Your task to perform on an android device: uninstall "eBay: The shopping marketplace" Image 0: 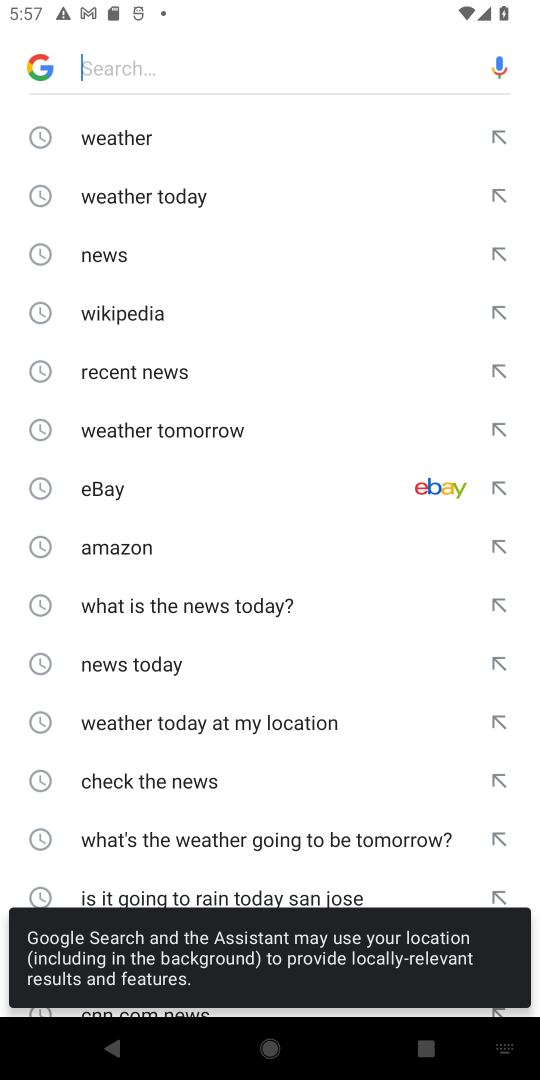
Step 0: press home button
Your task to perform on an android device: uninstall "eBay: The shopping marketplace" Image 1: 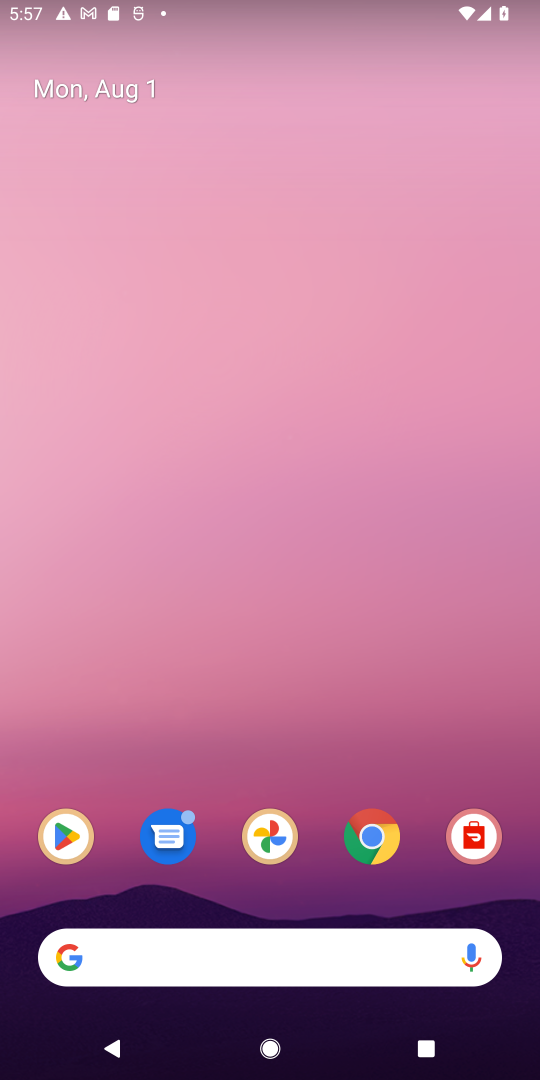
Step 1: click (57, 839)
Your task to perform on an android device: uninstall "eBay: The shopping marketplace" Image 2: 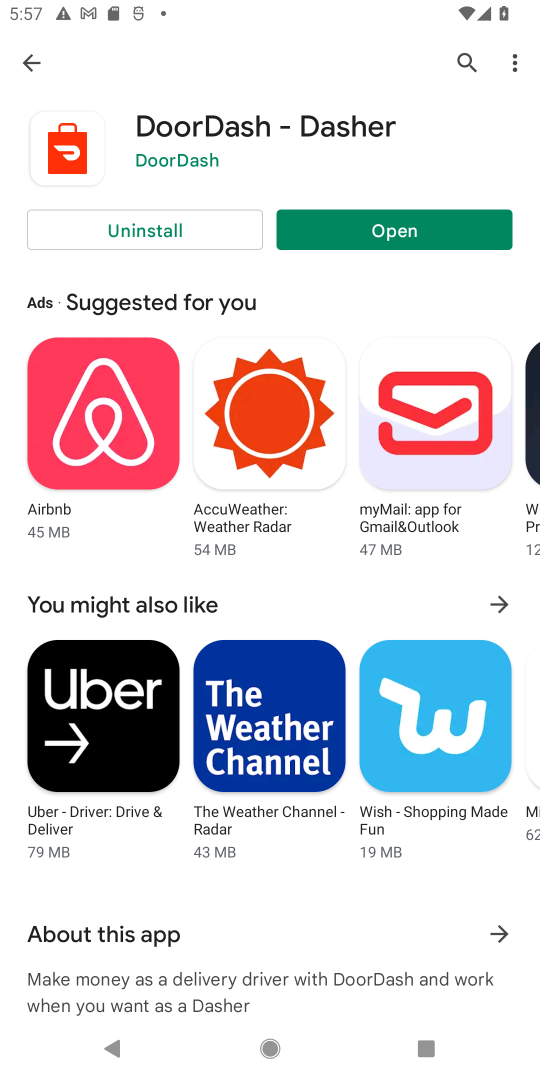
Step 2: click (461, 56)
Your task to perform on an android device: uninstall "eBay: The shopping marketplace" Image 3: 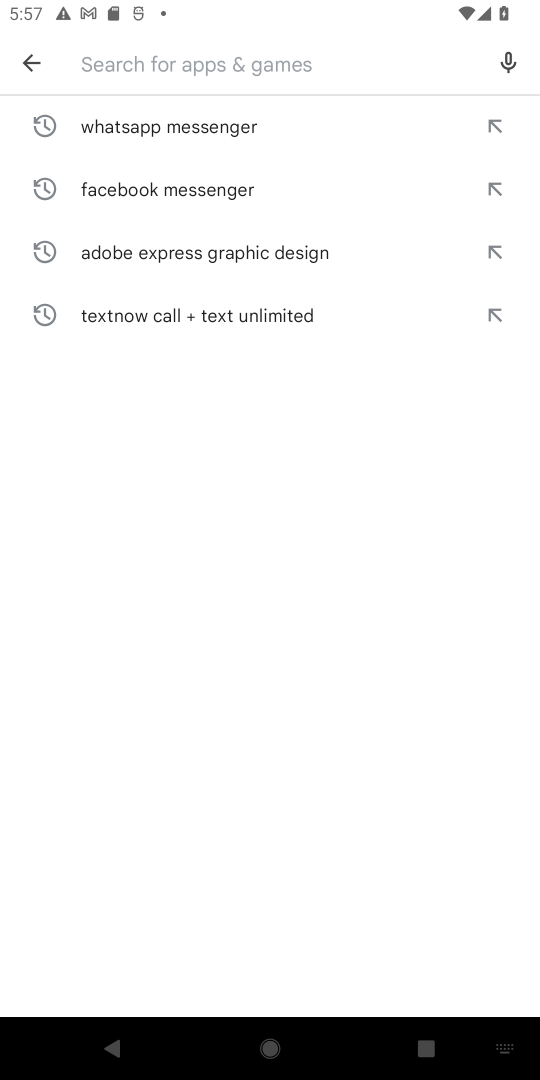
Step 3: type "eBay: The shopping marketplace"
Your task to perform on an android device: uninstall "eBay: The shopping marketplace" Image 4: 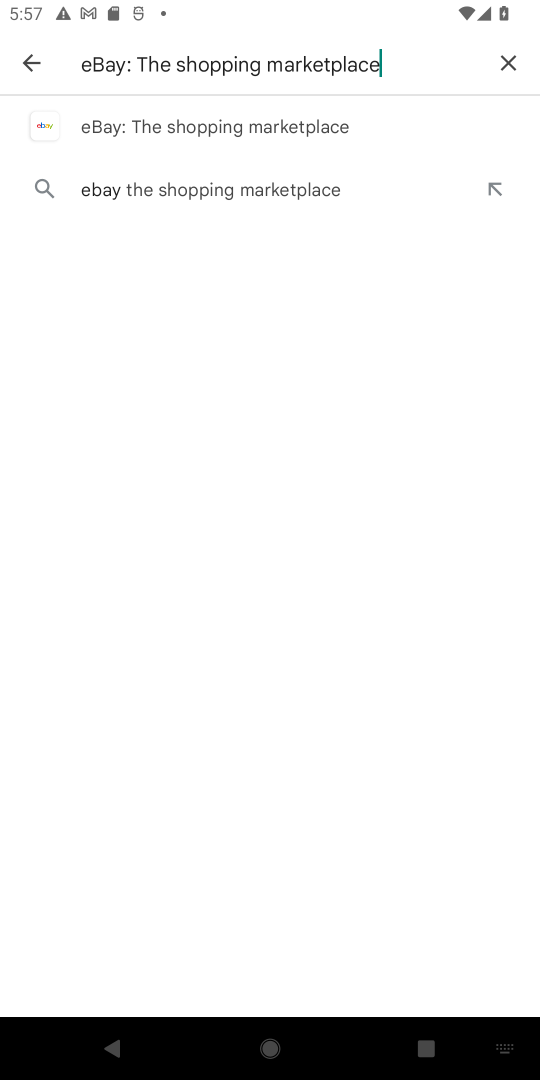
Step 4: click (191, 129)
Your task to perform on an android device: uninstall "eBay: The shopping marketplace" Image 5: 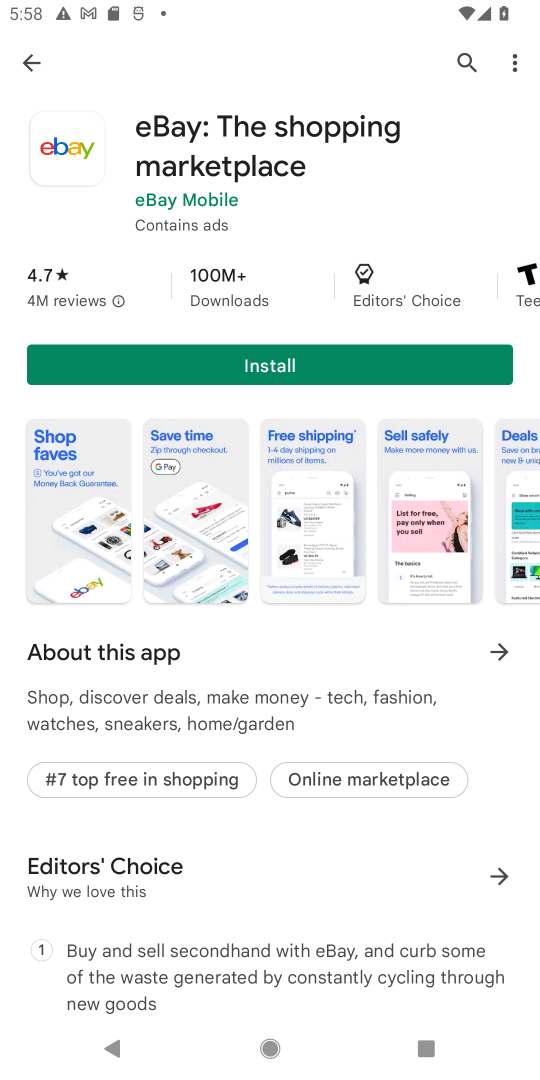
Step 5: task complete